Your task to perform on an android device: clear all cookies in the chrome app Image 0: 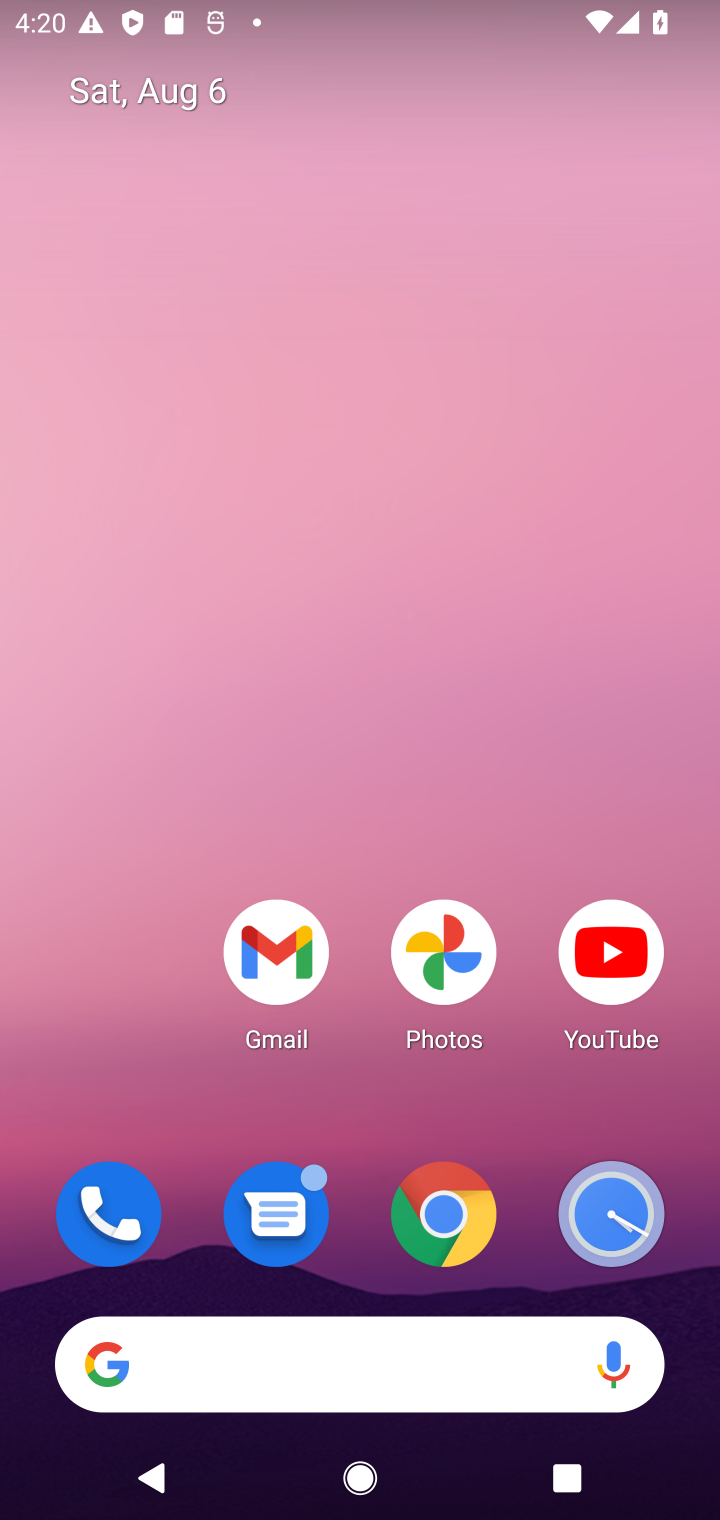
Step 0: click (450, 1221)
Your task to perform on an android device: clear all cookies in the chrome app Image 1: 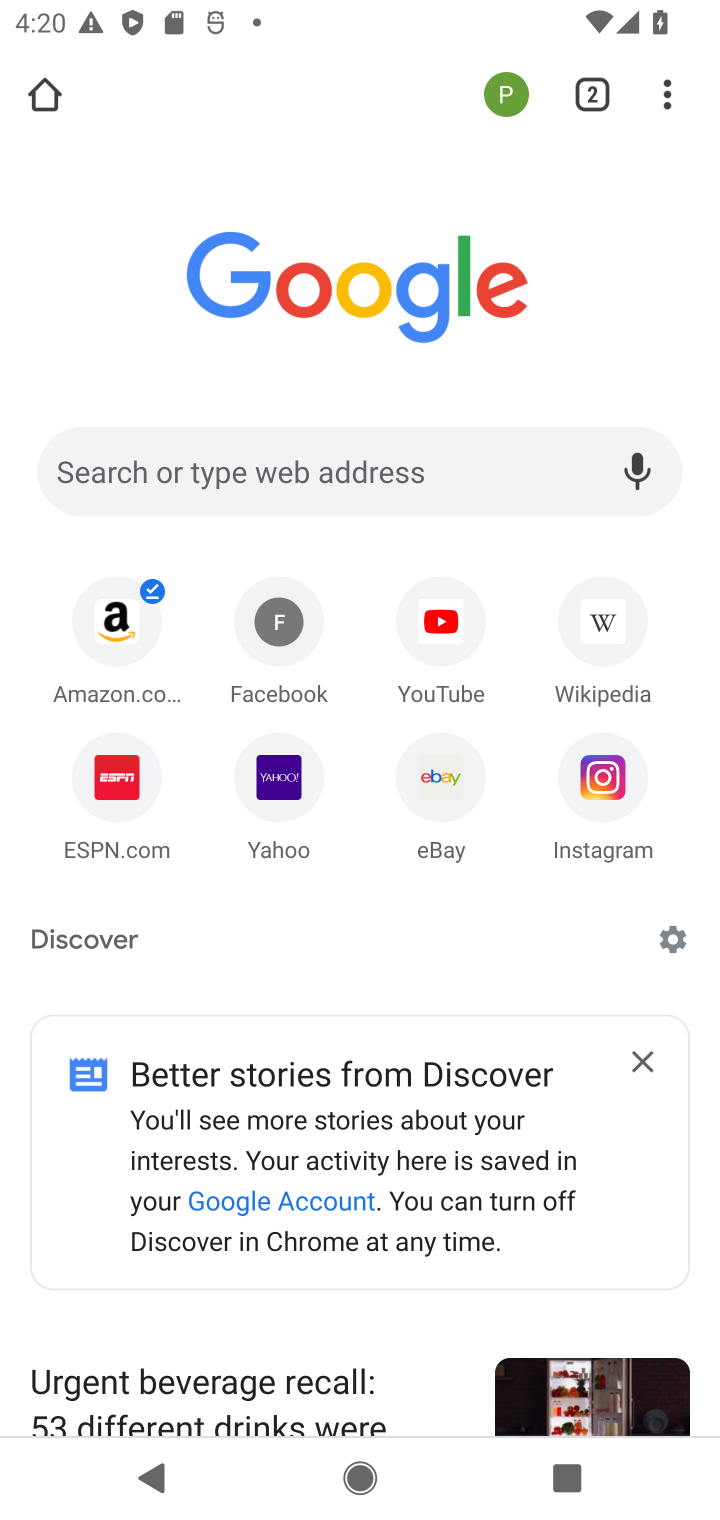
Step 1: click (665, 104)
Your task to perform on an android device: clear all cookies in the chrome app Image 2: 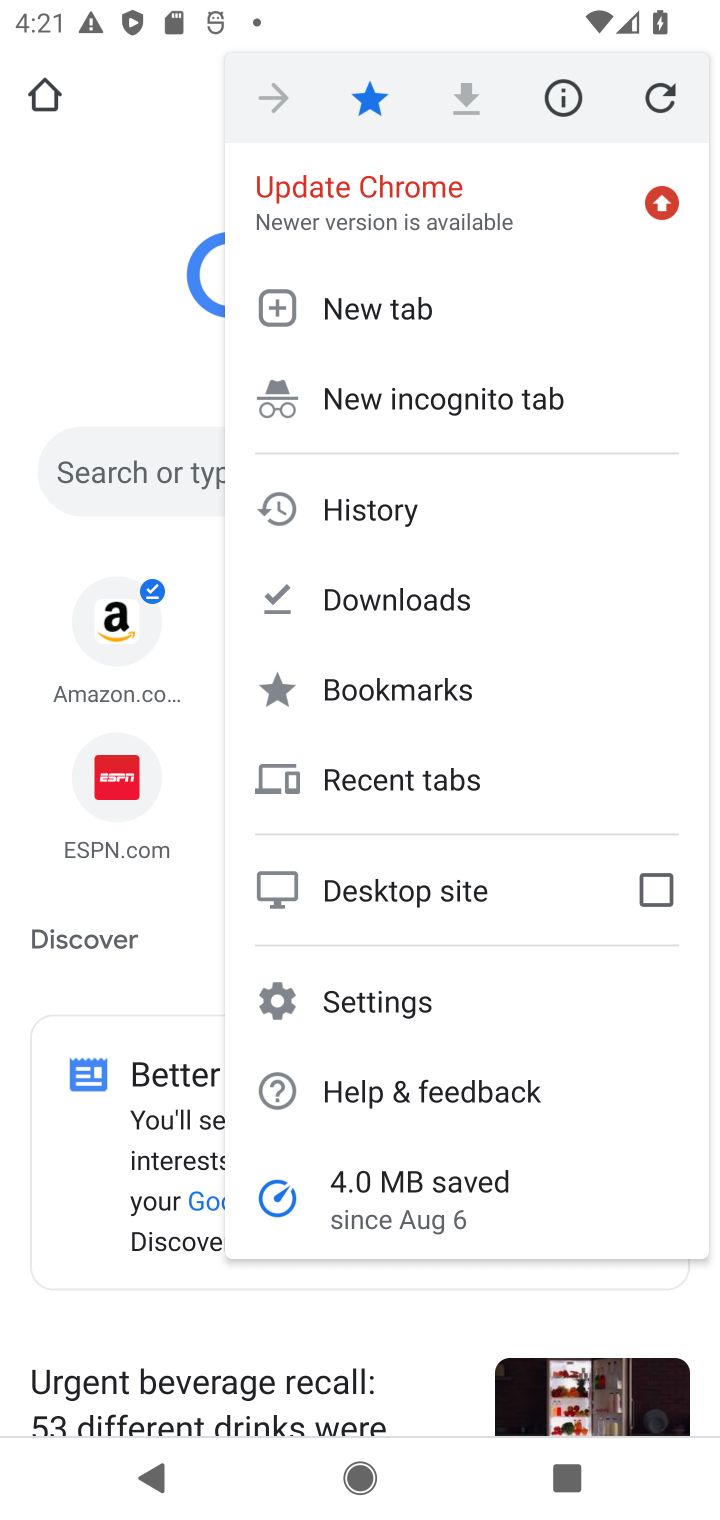
Step 2: click (363, 502)
Your task to perform on an android device: clear all cookies in the chrome app Image 3: 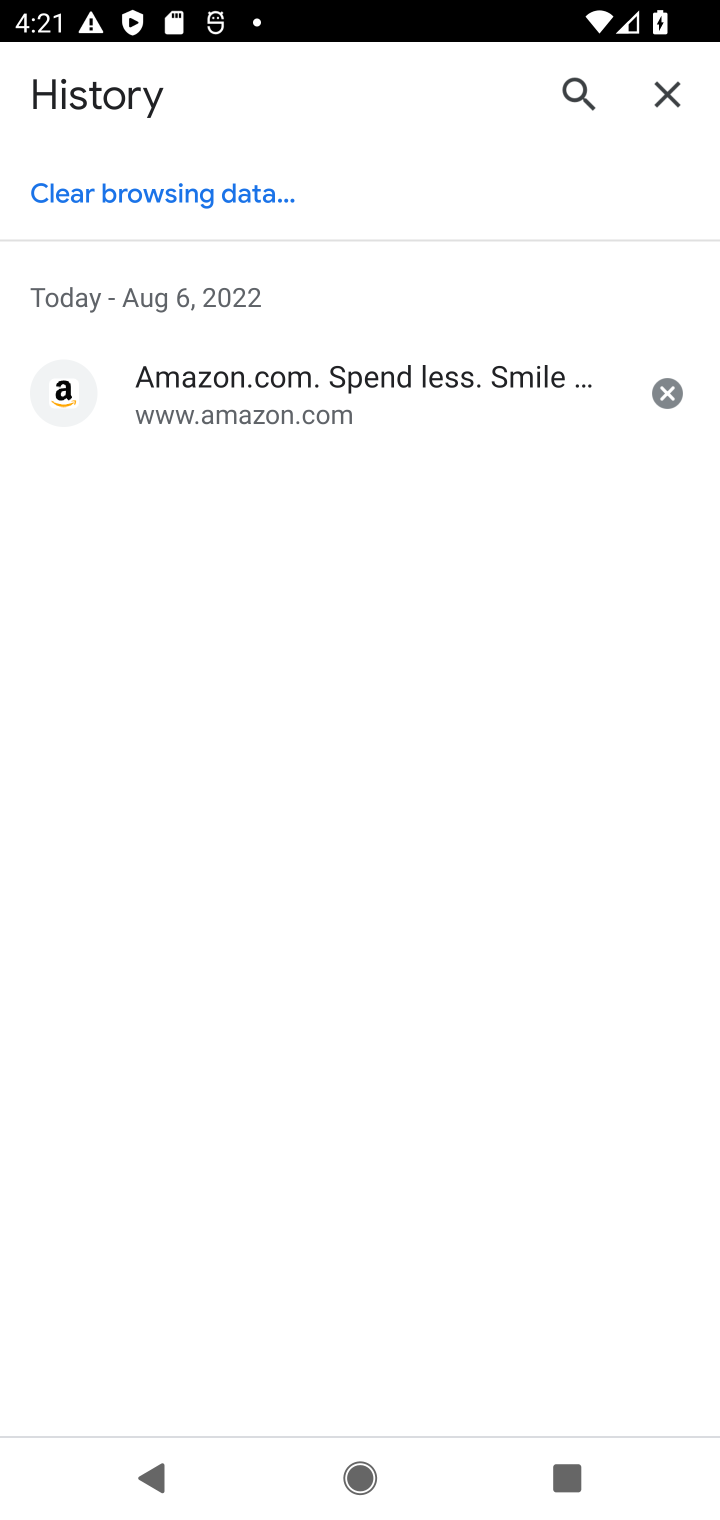
Step 3: click (224, 183)
Your task to perform on an android device: clear all cookies in the chrome app Image 4: 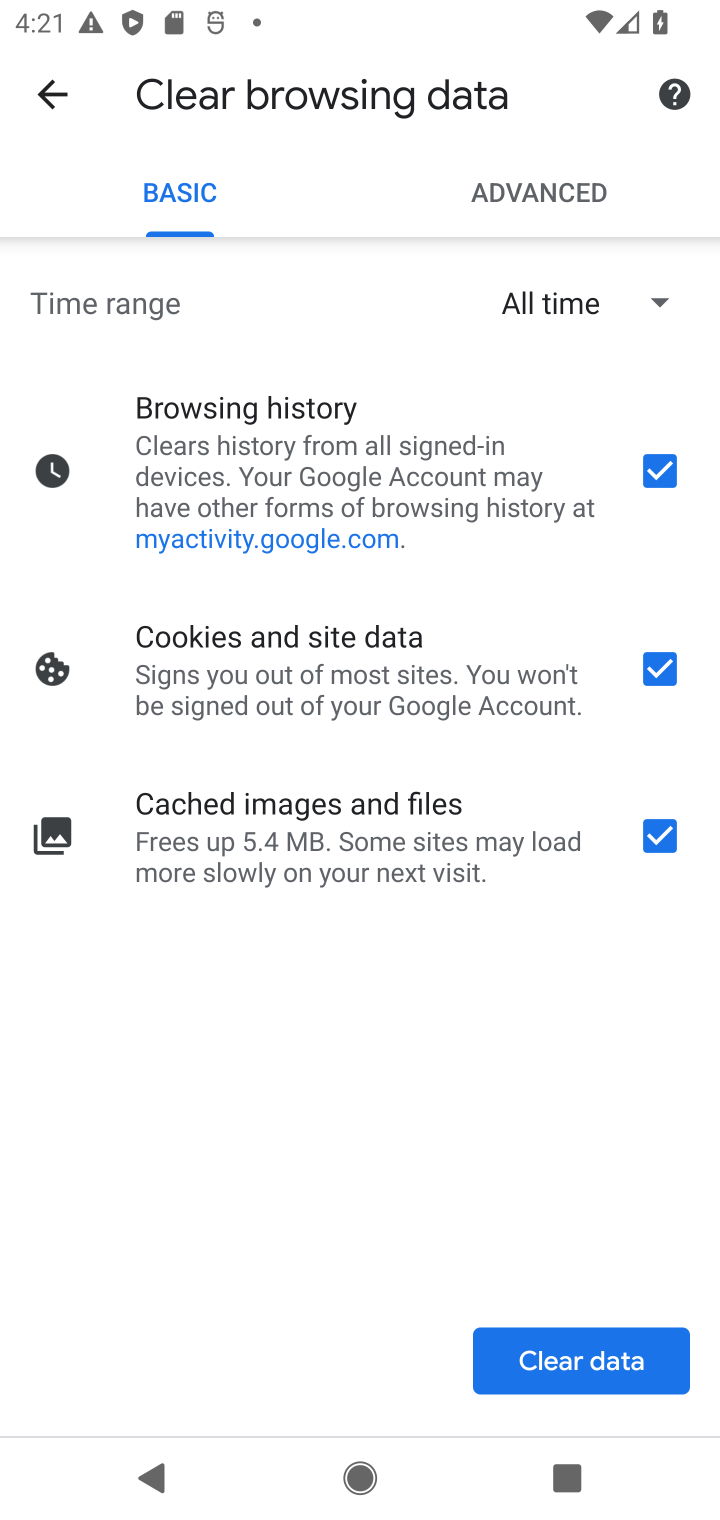
Step 4: click (665, 475)
Your task to perform on an android device: clear all cookies in the chrome app Image 5: 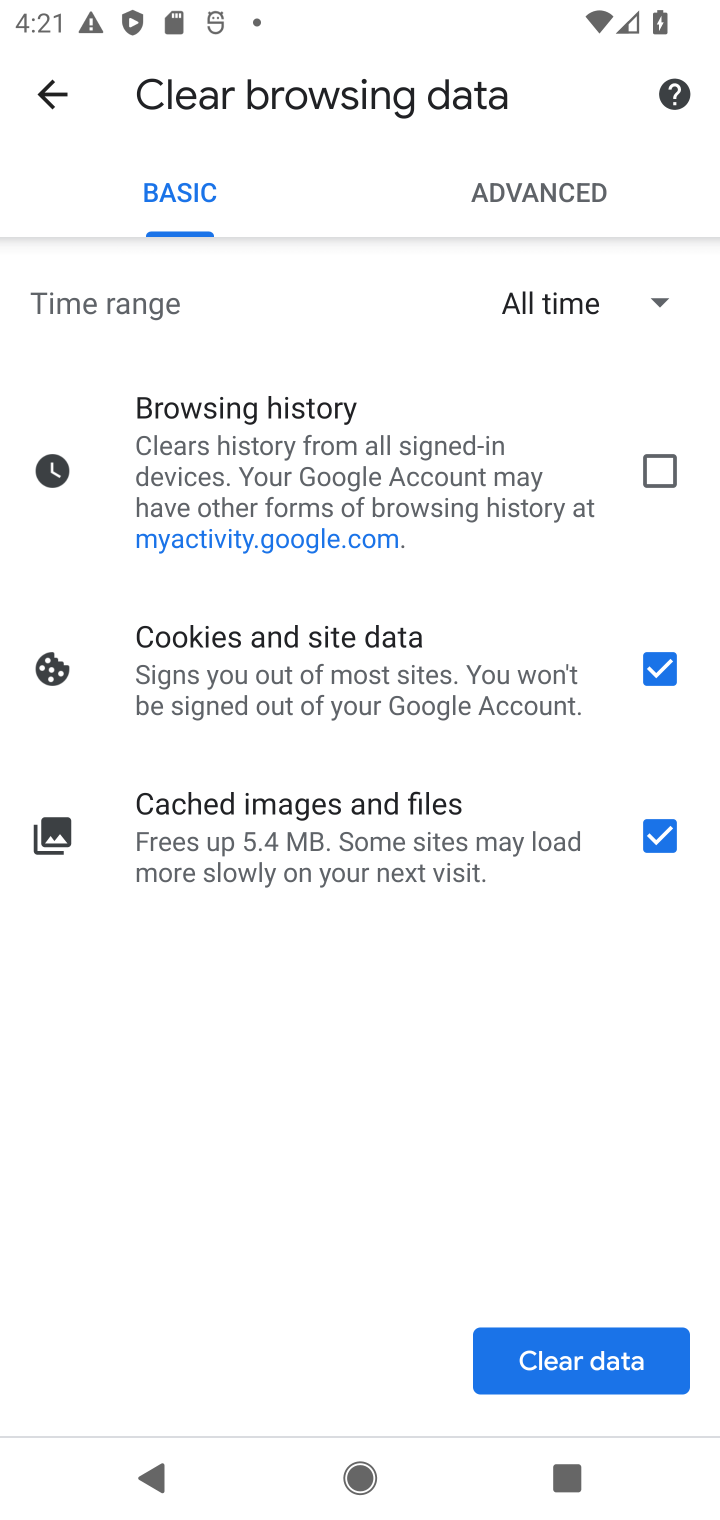
Step 5: click (652, 854)
Your task to perform on an android device: clear all cookies in the chrome app Image 6: 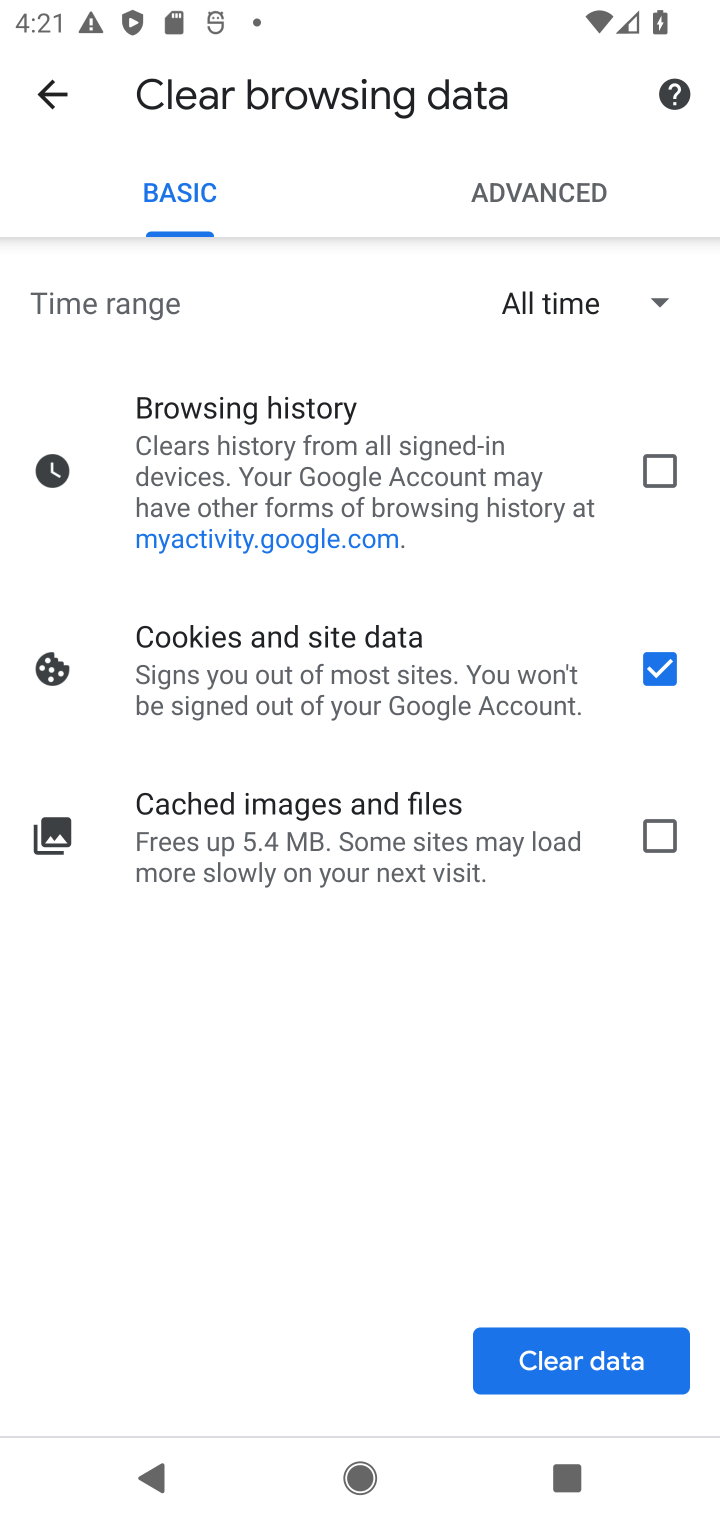
Step 6: click (507, 1339)
Your task to perform on an android device: clear all cookies in the chrome app Image 7: 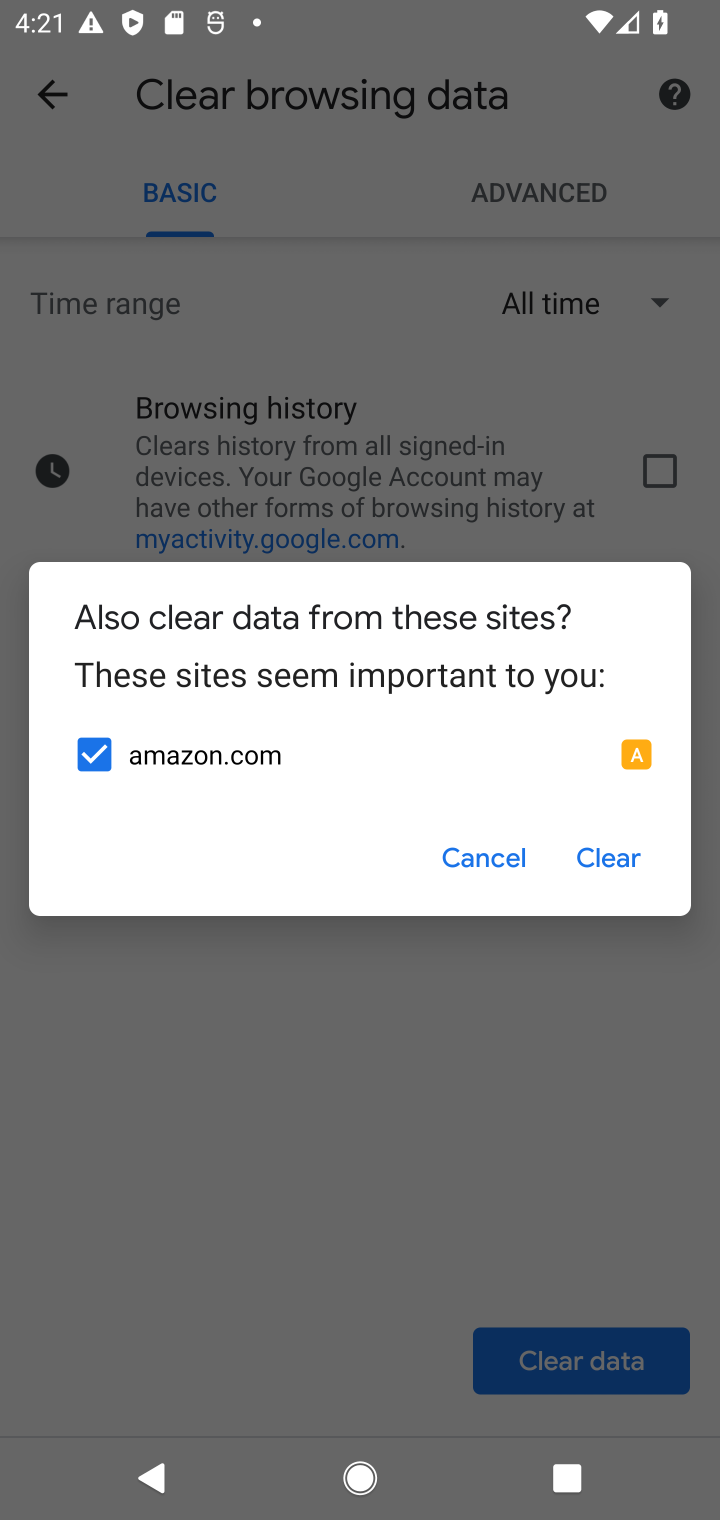
Step 7: click (619, 857)
Your task to perform on an android device: clear all cookies in the chrome app Image 8: 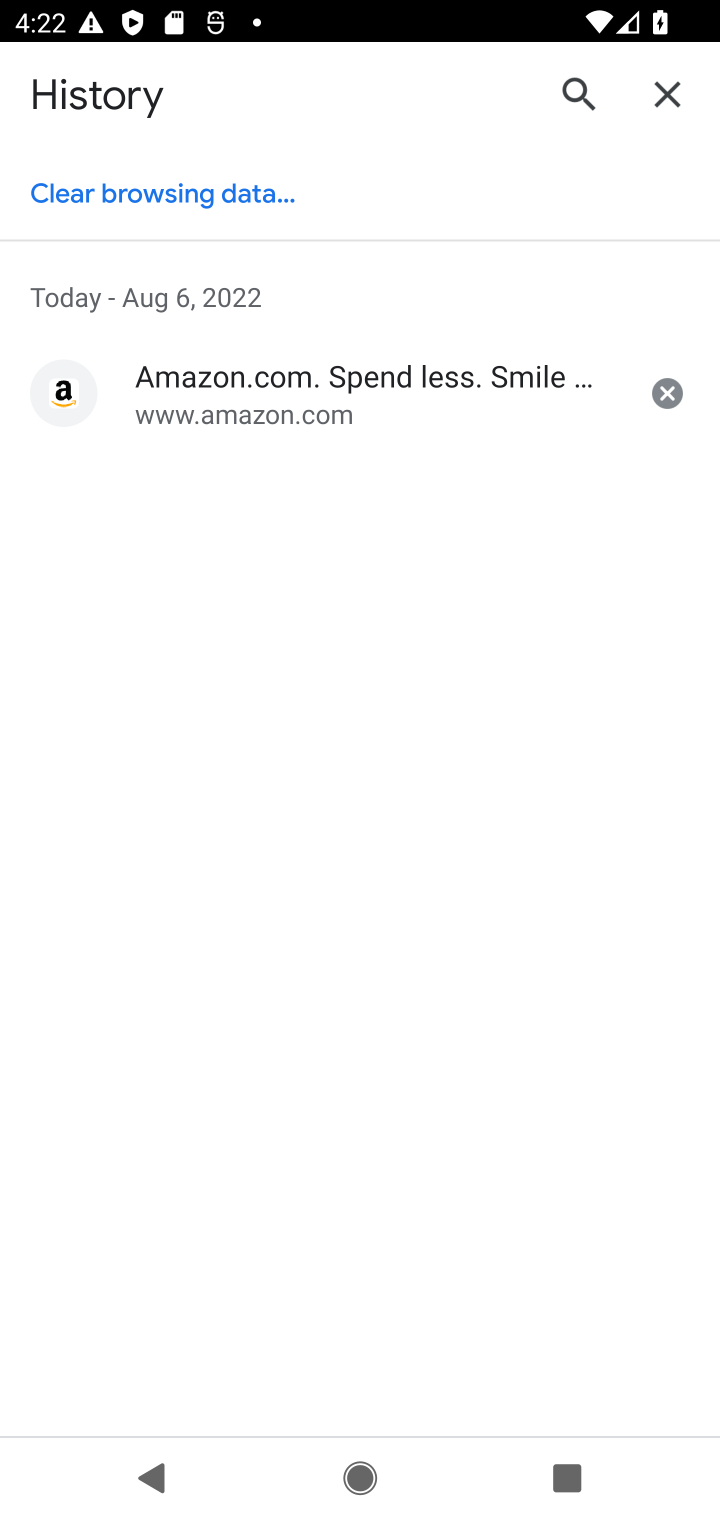
Step 8: task complete